Your task to perform on an android device: open a bookmark in the chrome app Image 0: 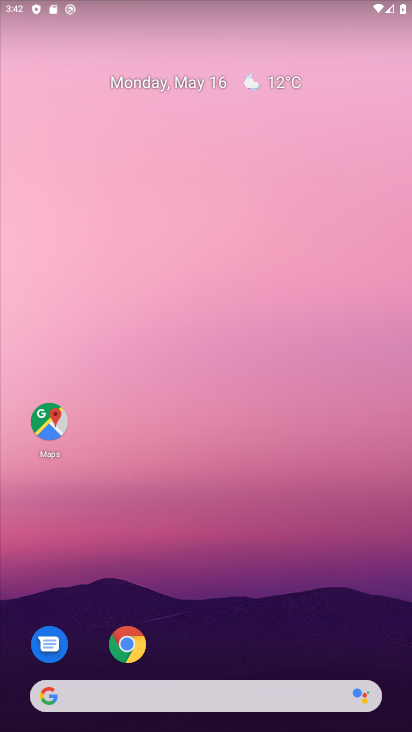
Step 0: click (124, 647)
Your task to perform on an android device: open a bookmark in the chrome app Image 1: 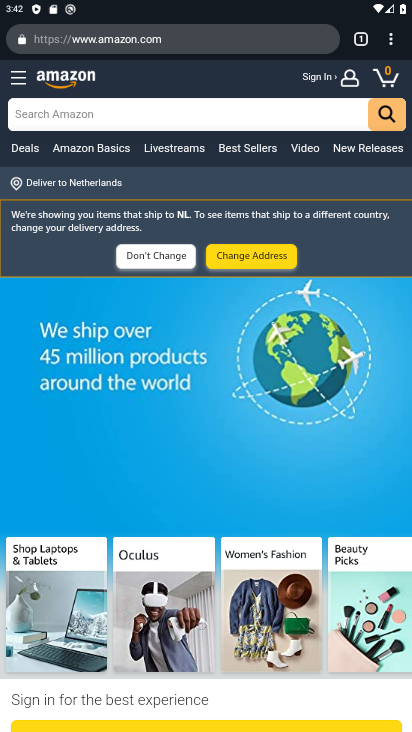
Step 1: task complete